Your task to perform on an android device: Open the web browser Image 0: 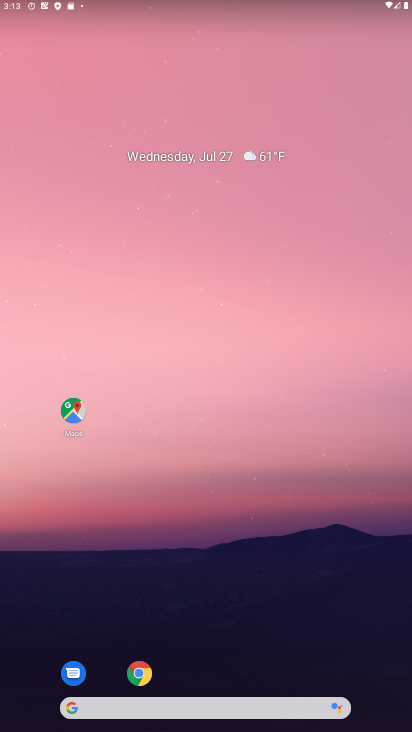
Step 0: press home button
Your task to perform on an android device: Open the web browser Image 1: 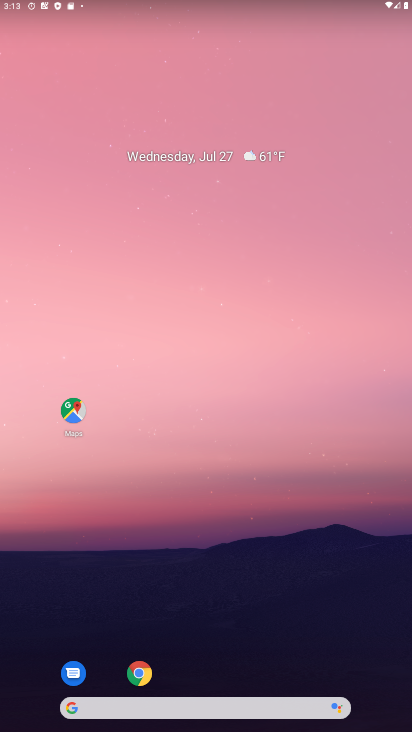
Step 1: task complete